Your task to perform on an android device: change your default location settings in chrome Image 0: 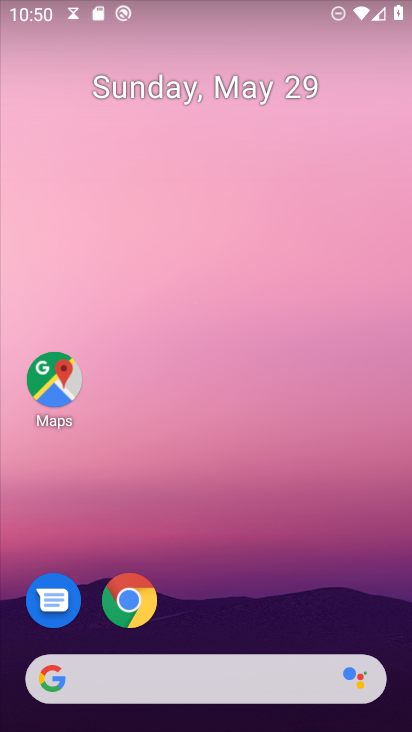
Step 0: click (126, 599)
Your task to perform on an android device: change your default location settings in chrome Image 1: 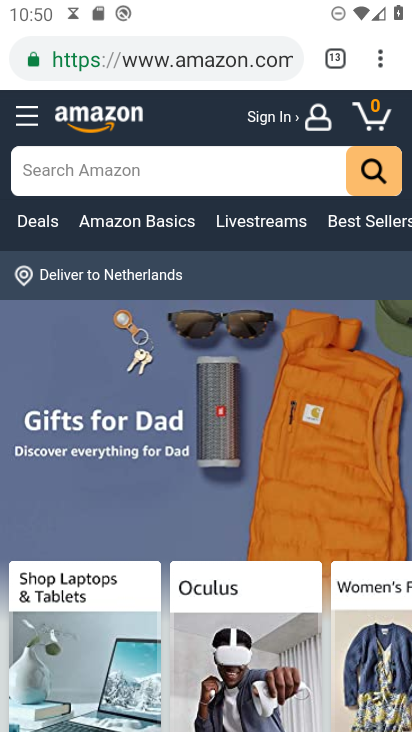
Step 1: click (379, 64)
Your task to perform on an android device: change your default location settings in chrome Image 2: 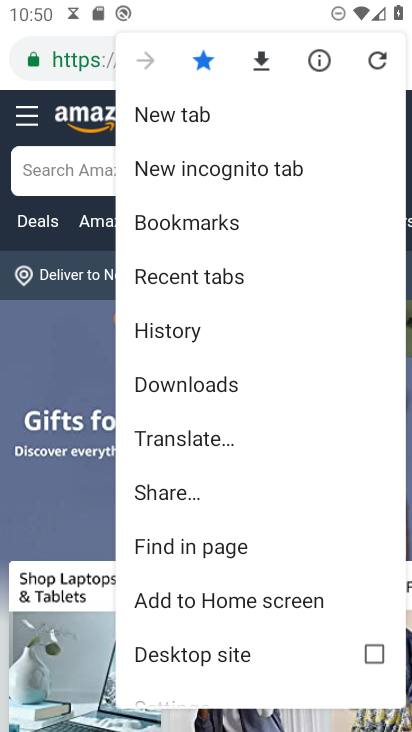
Step 2: drag from (191, 635) to (232, 283)
Your task to perform on an android device: change your default location settings in chrome Image 3: 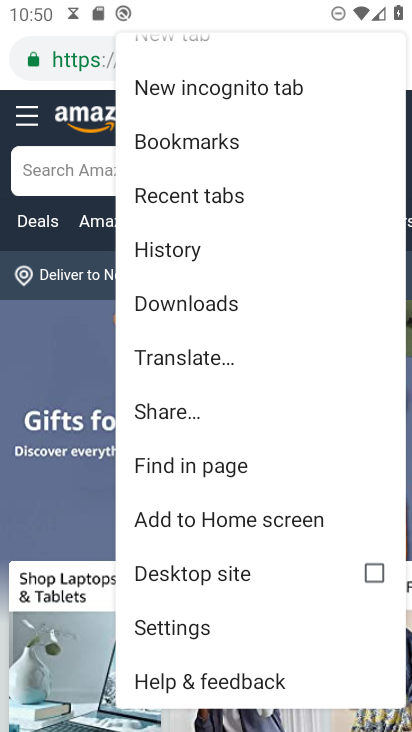
Step 3: click (169, 623)
Your task to perform on an android device: change your default location settings in chrome Image 4: 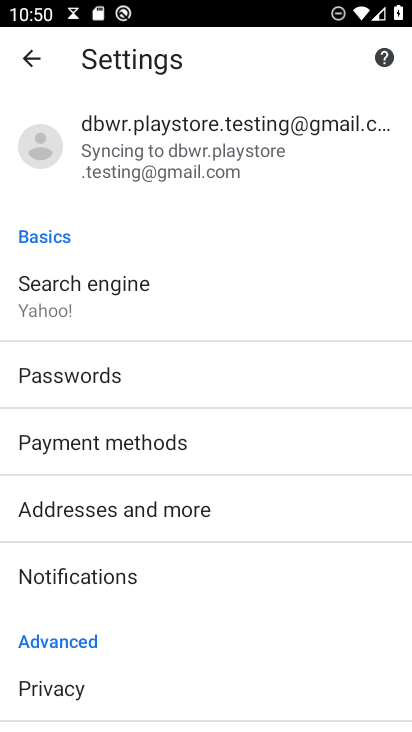
Step 4: drag from (129, 645) to (131, 330)
Your task to perform on an android device: change your default location settings in chrome Image 5: 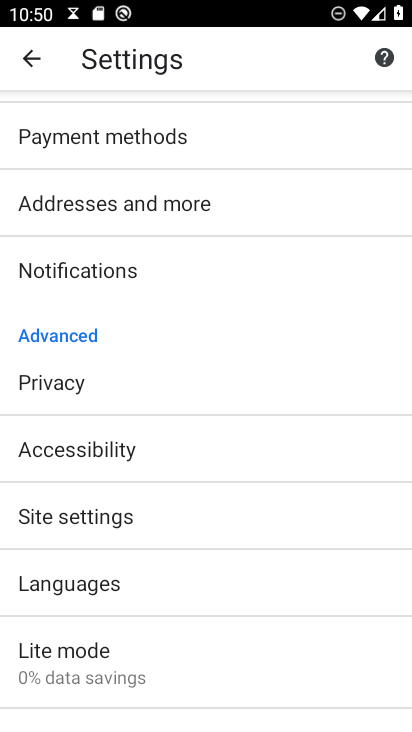
Step 5: drag from (99, 645) to (103, 333)
Your task to perform on an android device: change your default location settings in chrome Image 6: 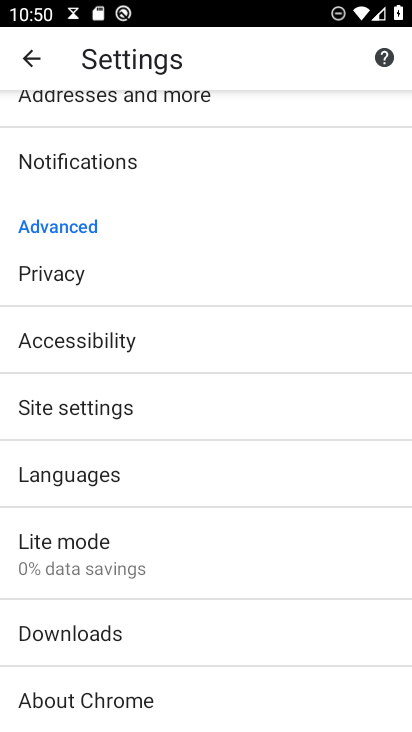
Step 6: drag from (189, 187) to (186, 245)
Your task to perform on an android device: change your default location settings in chrome Image 7: 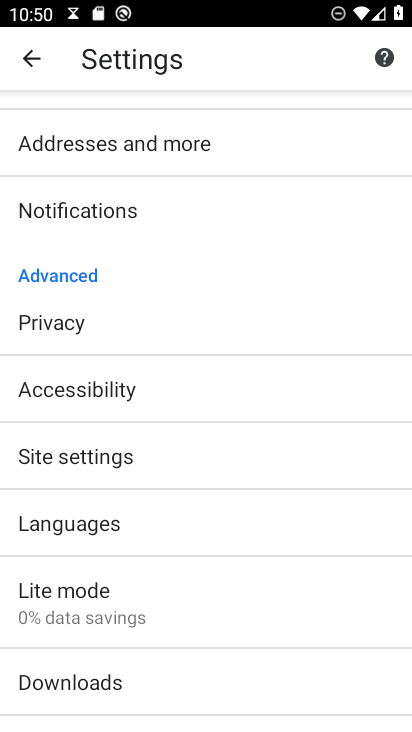
Step 7: click (84, 452)
Your task to perform on an android device: change your default location settings in chrome Image 8: 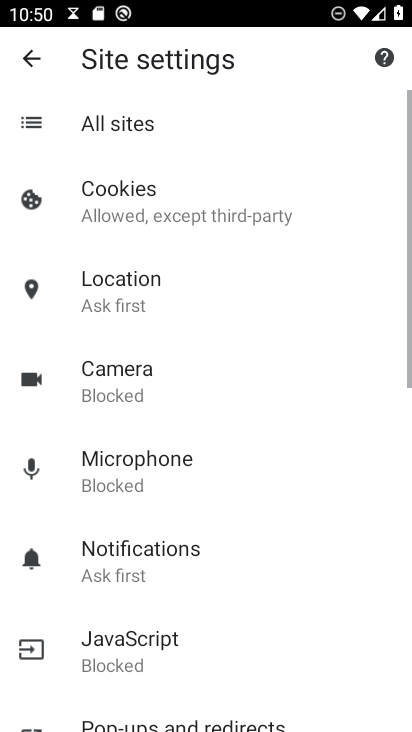
Step 8: click (109, 281)
Your task to perform on an android device: change your default location settings in chrome Image 9: 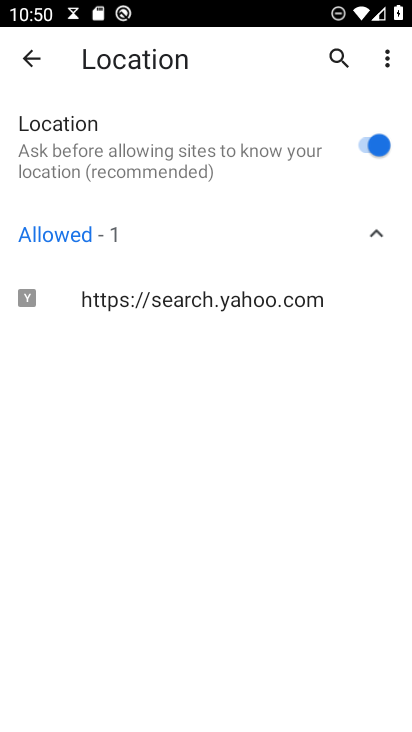
Step 9: click (371, 139)
Your task to perform on an android device: change your default location settings in chrome Image 10: 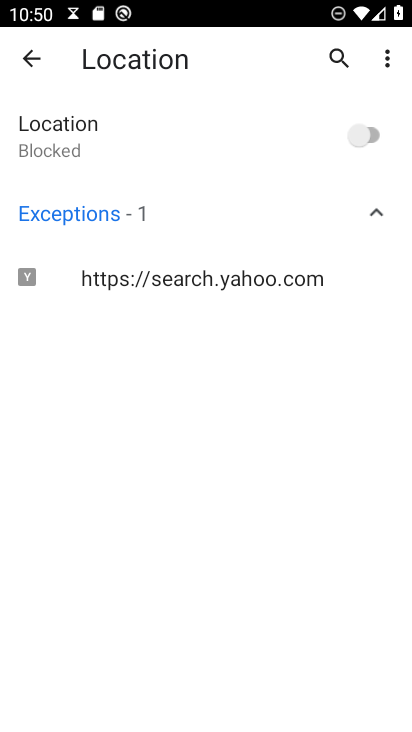
Step 10: task complete